Your task to perform on an android device: toggle location history Image 0: 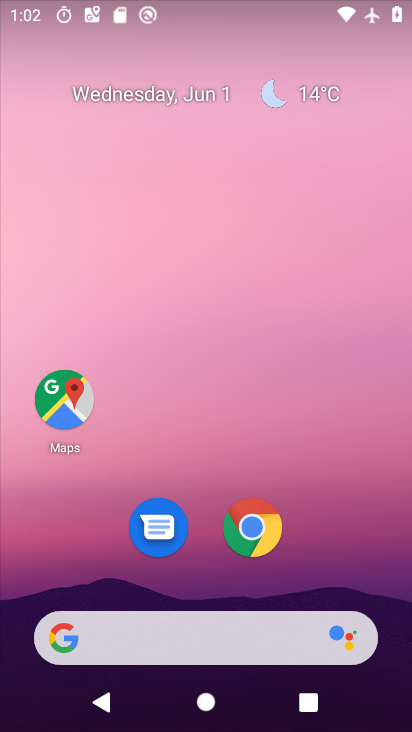
Step 0: click (57, 404)
Your task to perform on an android device: toggle location history Image 1: 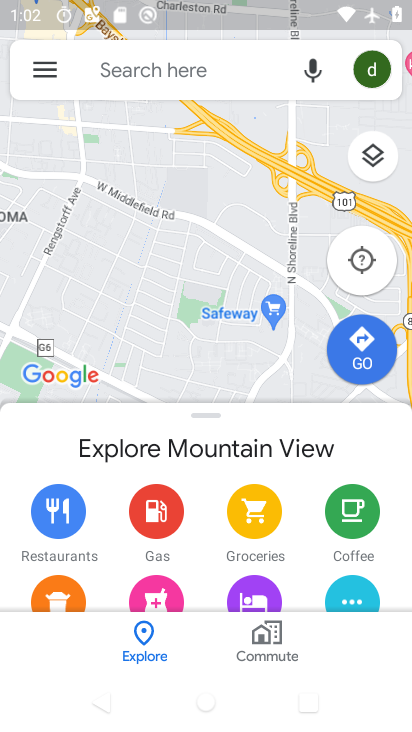
Step 1: click (39, 64)
Your task to perform on an android device: toggle location history Image 2: 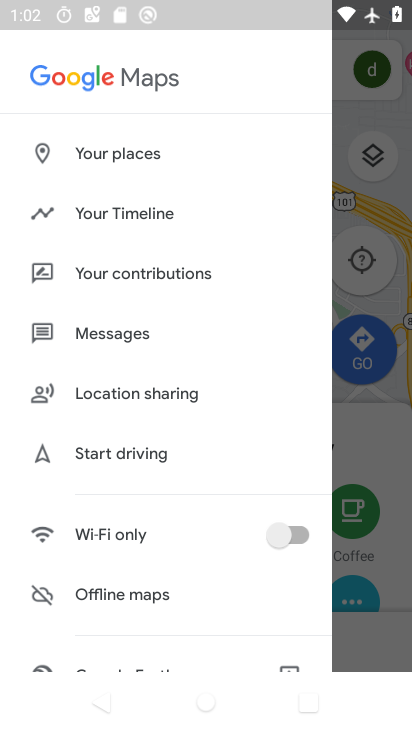
Step 2: click (113, 215)
Your task to perform on an android device: toggle location history Image 3: 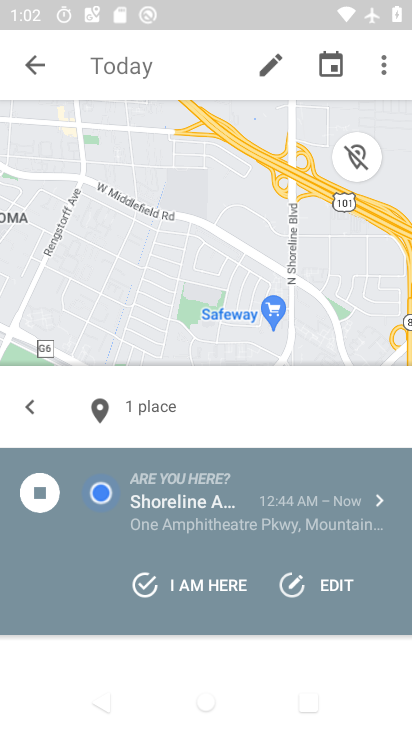
Step 3: click (384, 74)
Your task to perform on an android device: toggle location history Image 4: 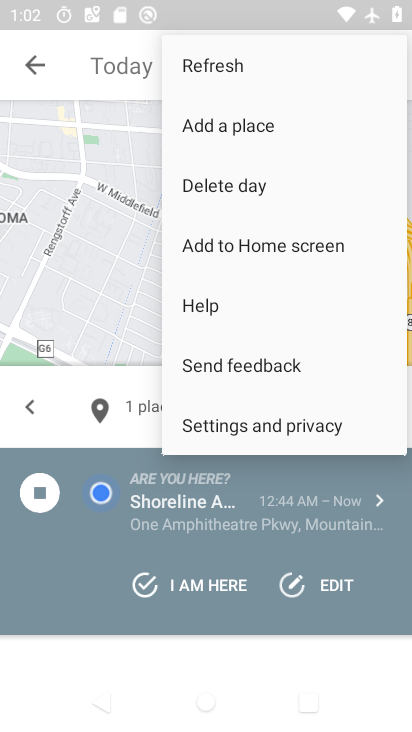
Step 4: click (249, 433)
Your task to perform on an android device: toggle location history Image 5: 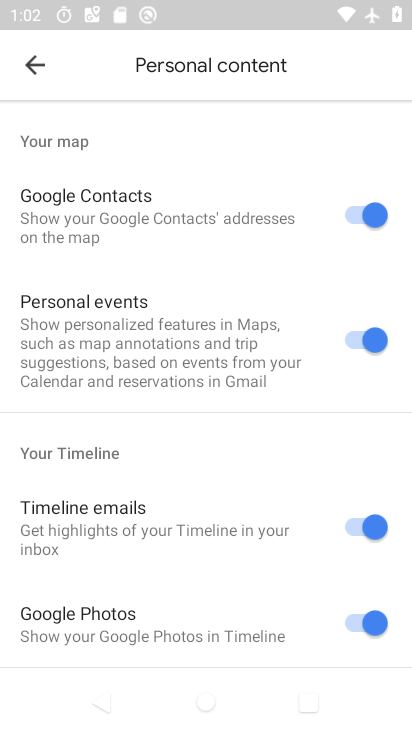
Step 5: drag from (249, 433) to (301, 6)
Your task to perform on an android device: toggle location history Image 6: 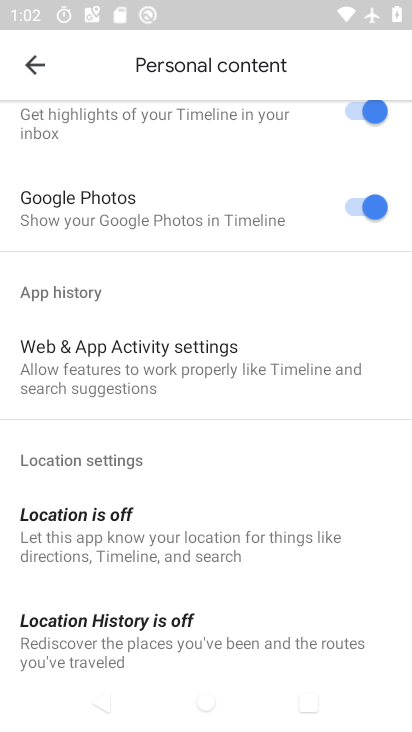
Step 6: click (78, 535)
Your task to perform on an android device: toggle location history Image 7: 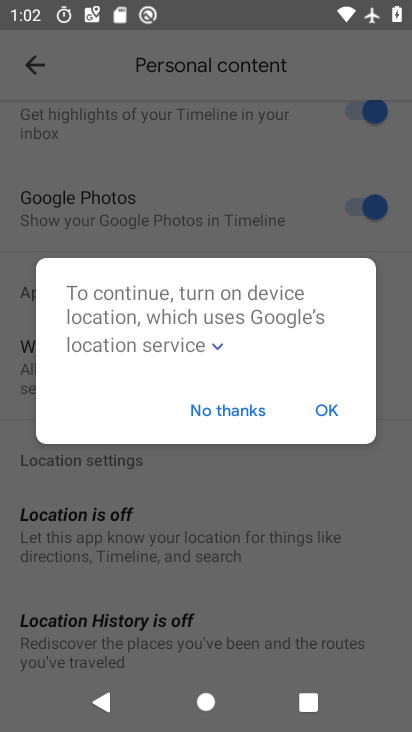
Step 7: click (251, 410)
Your task to perform on an android device: toggle location history Image 8: 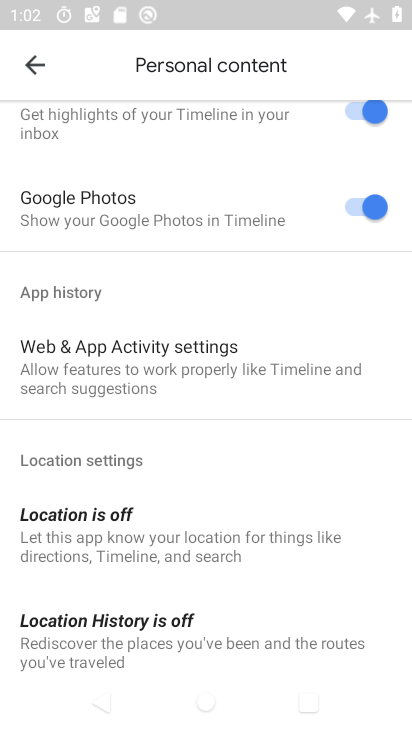
Step 8: click (80, 646)
Your task to perform on an android device: toggle location history Image 9: 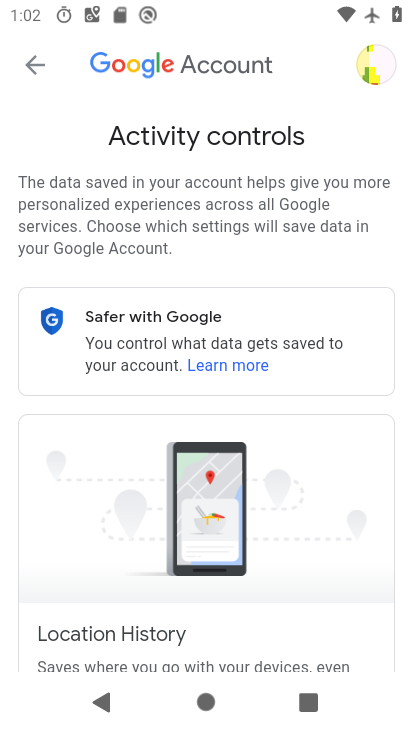
Step 9: drag from (297, 587) to (292, 121)
Your task to perform on an android device: toggle location history Image 10: 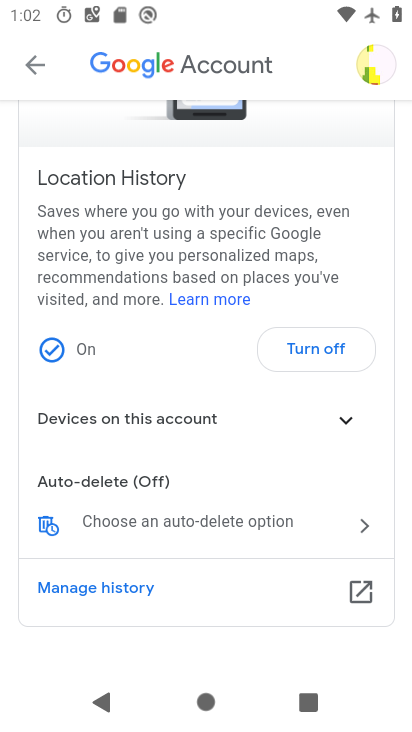
Step 10: click (332, 358)
Your task to perform on an android device: toggle location history Image 11: 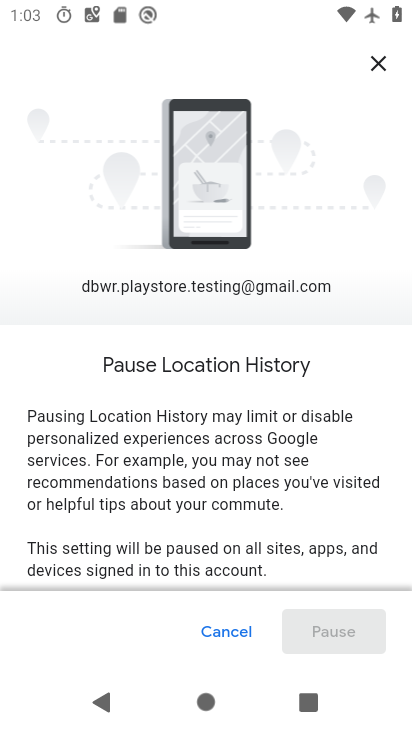
Step 11: drag from (237, 526) to (250, 87)
Your task to perform on an android device: toggle location history Image 12: 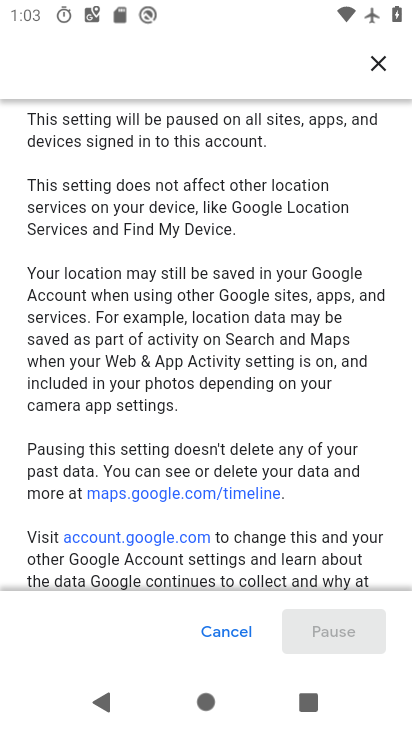
Step 12: drag from (247, 489) to (257, 123)
Your task to perform on an android device: toggle location history Image 13: 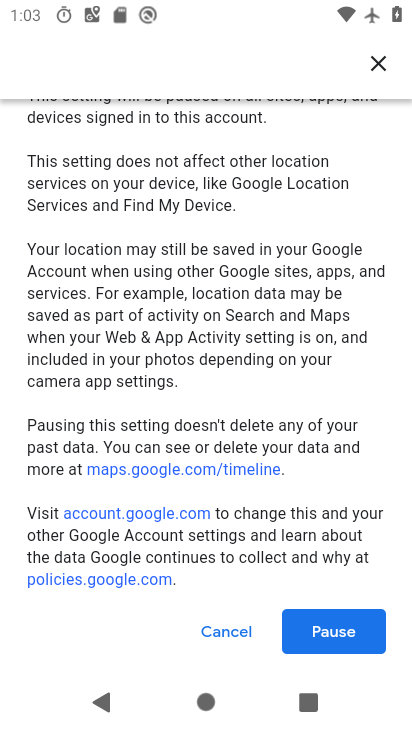
Step 13: click (324, 639)
Your task to perform on an android device: toggle location history Image 14: 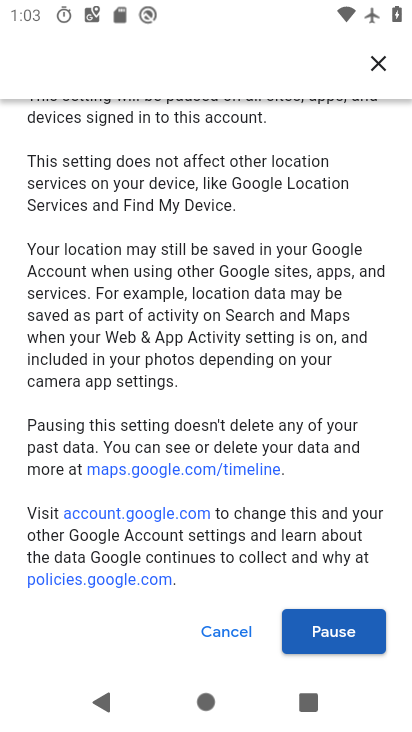
Step 14: click (329, 630)
Your task to perform on an android device: toggle location history Image 15: 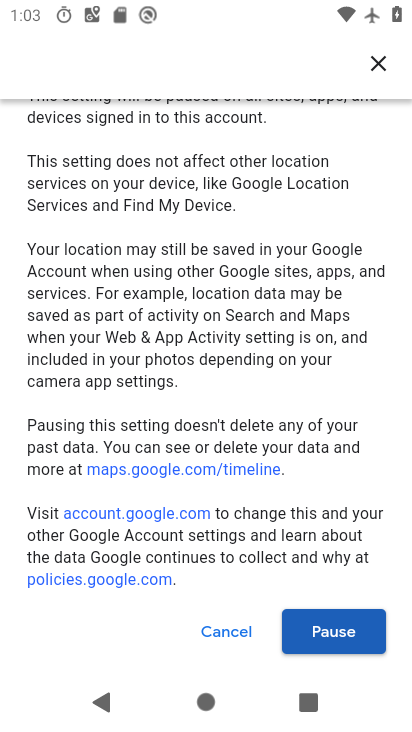
Step 15: click (330, 629)
Your task to perform on an android device: toggle location history Image 16: 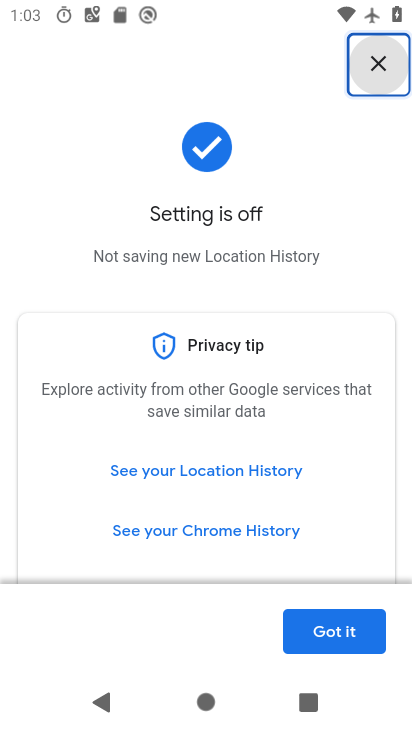
Step 16: click (348, 648)
Your task to perform on an android device: toggle location history Image 17: 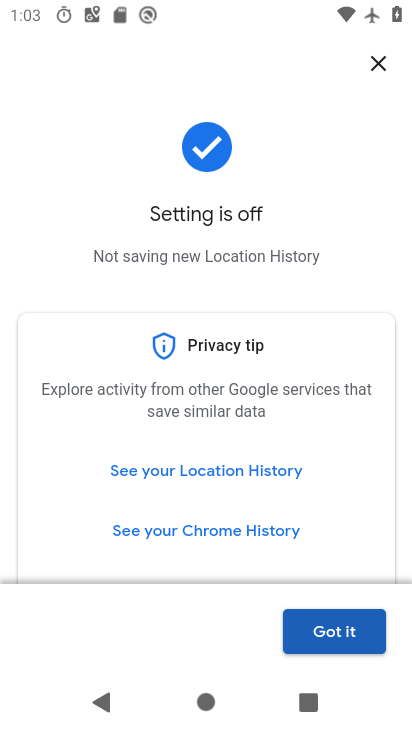
Step 17: click (322, 637)
Your task to perform on an android device: toggle location history Image 18: 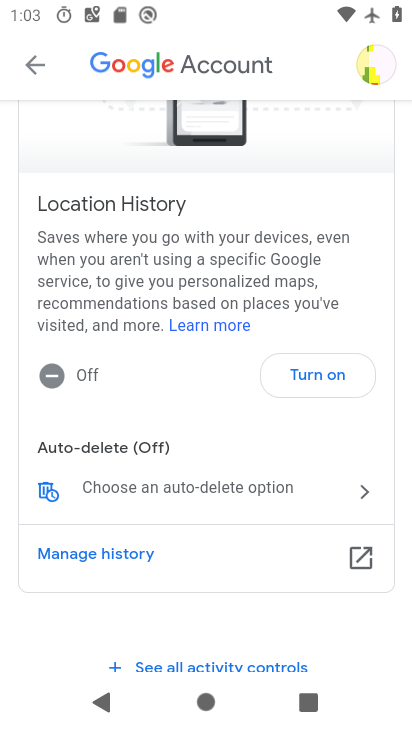
Step 18: task complete